Your task to perform on an android device: Open notification settings Image 0: 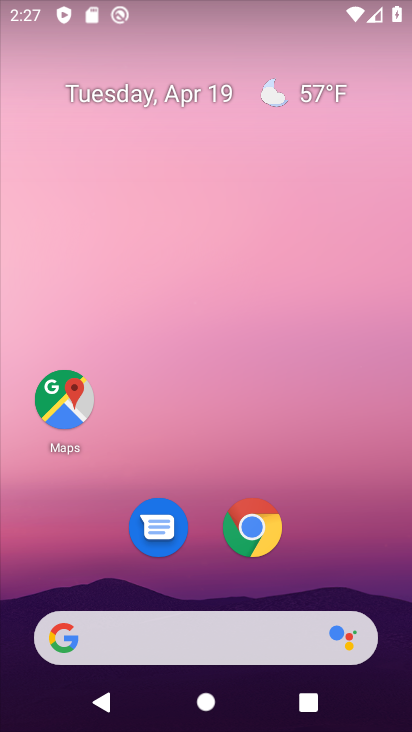
Step 0: drag from (326, 571) to (392, 92)
Your task to perform on an android device: Open notification settings Image 1: 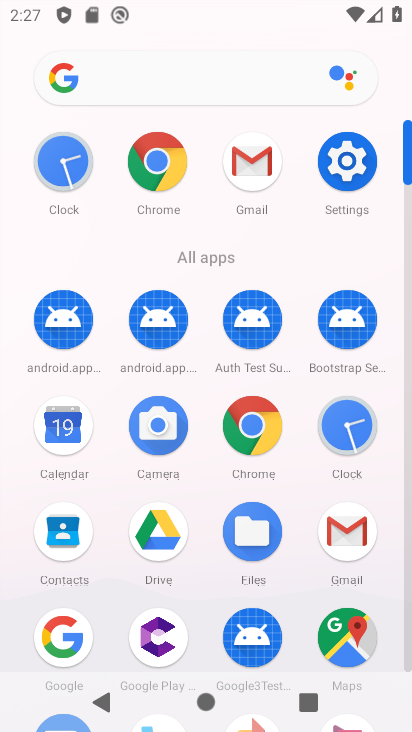
Step 1: click (351, 167)
Your task to perform on an android device: Open notification settings Image 2: 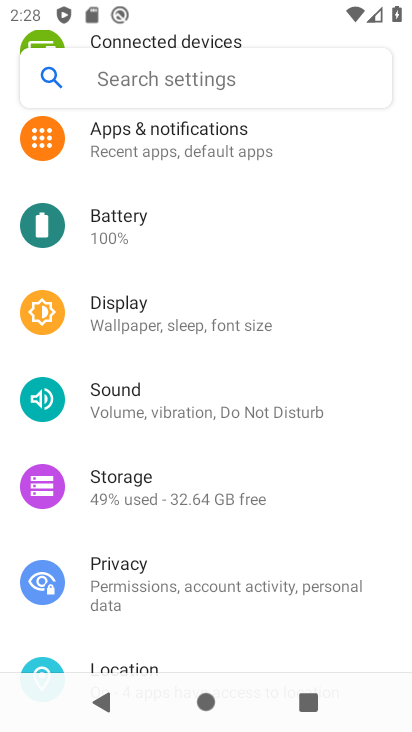
Step 2: click (279, 134)
Your task to perform on an android device: Open notification settings Image 3: 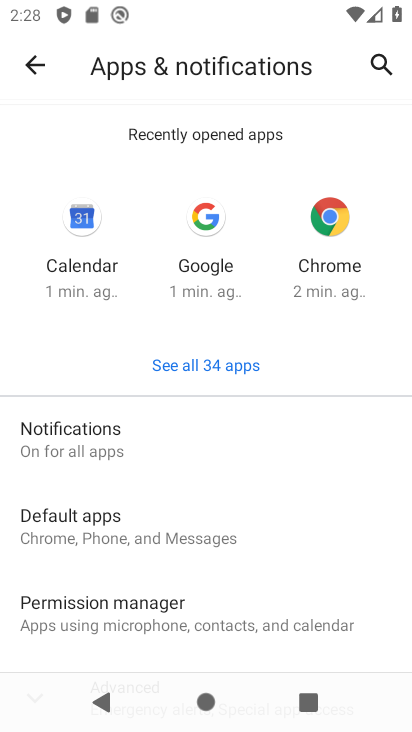
Step 3: click (245, 437)
Your task to perform on an android device: Open notification settings Image 4: 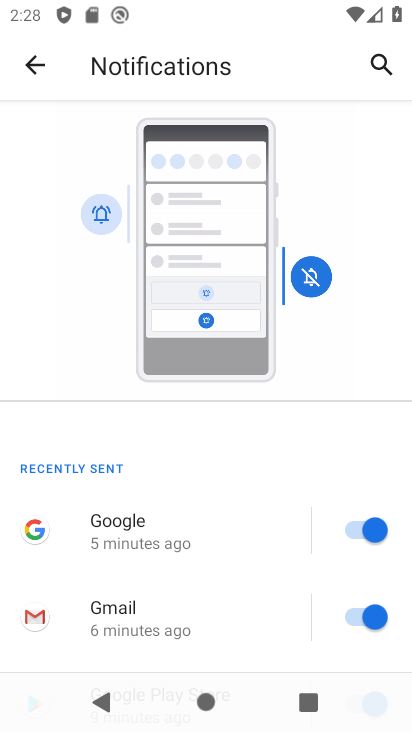
Step 4: task complete